Your task to perform on an android device: show emergency info Image 0: 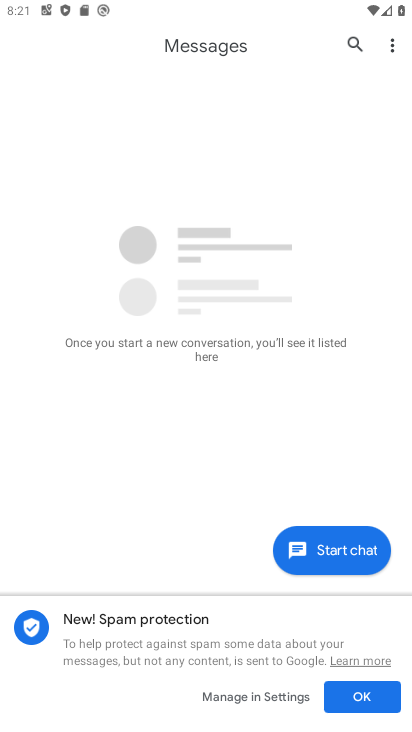
Step 0: press home button
Your task to perform on an android device: show emergency info Image 1: 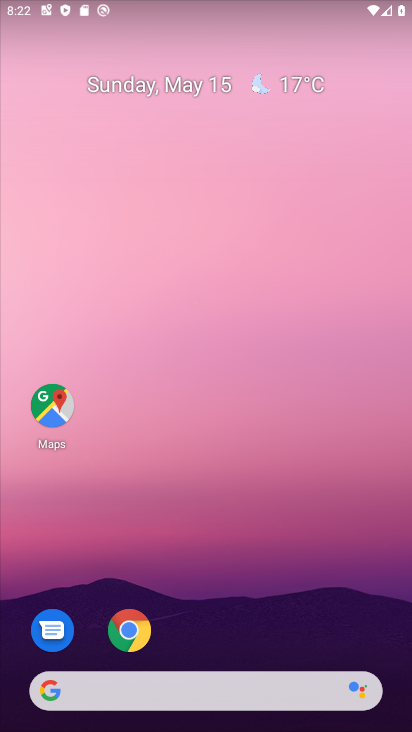
Step 1: drag from (283, 552) to (170, 137)
Your task to perform on an android device: show emergency info Image 2: 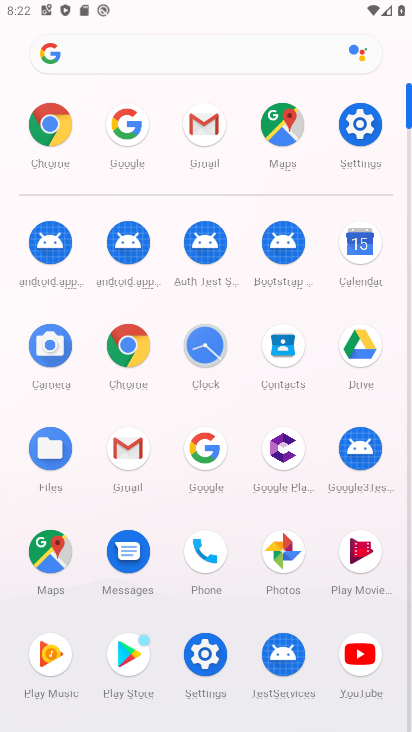
Step 2: click (367, 123)
Your task to perform on an android device: show emergency info Image 3: 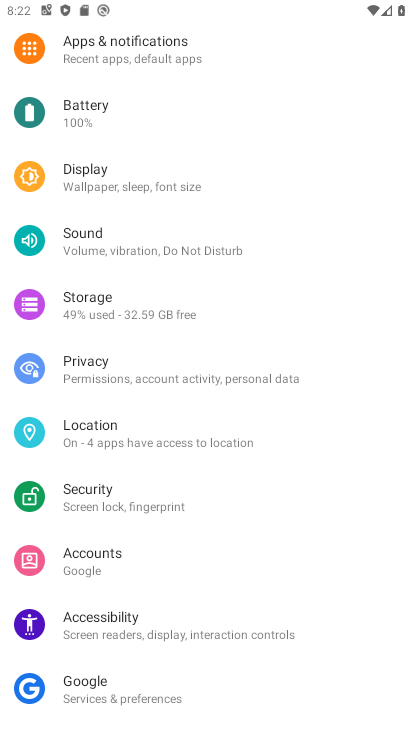
Step 3: drag from (180, 604) to (135, 194)
Your task to perform on an android device: show emergency info Image 4: 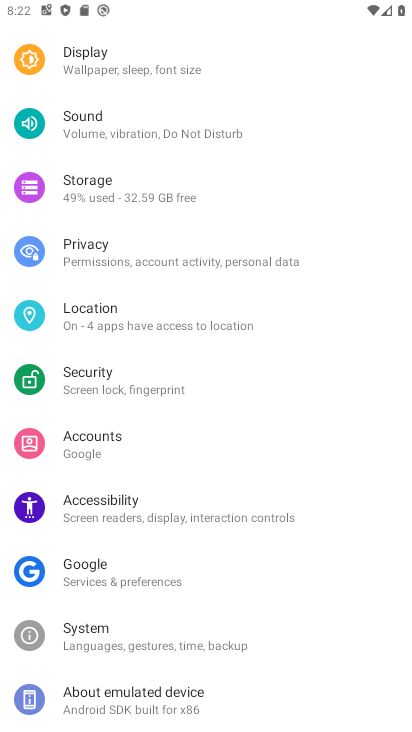
Step 4: drag from (138, 567) to (142, 100)
Your task to perform on an android device: show emergency info Image 5: 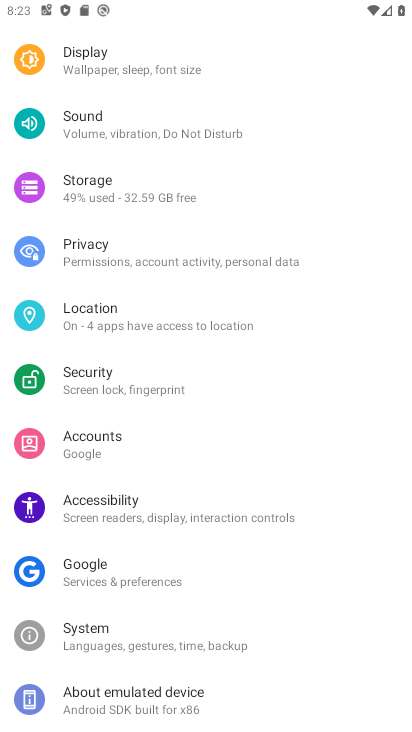
Step 5: click (67, 692)
Your task to perform on an android device: show emergency info Image 6: 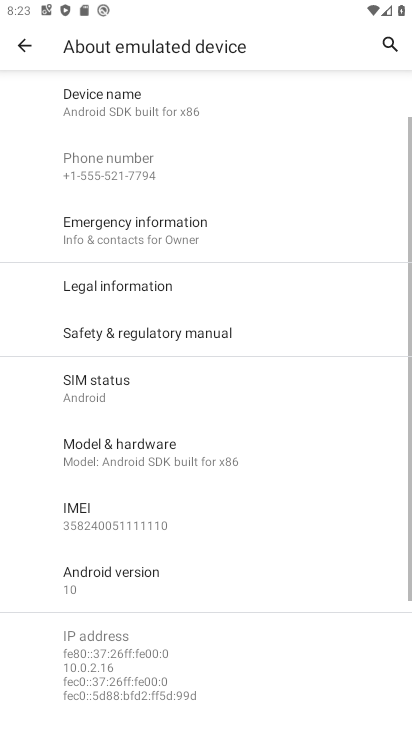
Step 6: drag from (185, 621) to (202, 399)
Your task to perform on an android device: show emergency info Image 7: 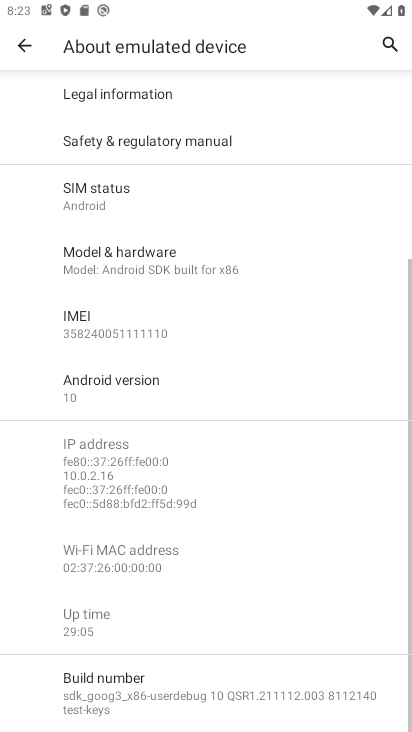
Step 7: drag from (206, 274) to (200, 615)
Your task to perform on an android device: show emergency info Image 8: 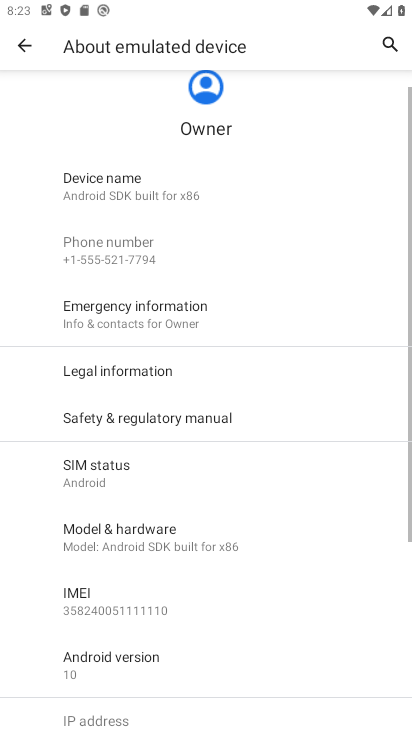
Step 8: drag from (188, 370) to (200, 559)
Your task to perform on an android device: show emergency info Image 9: 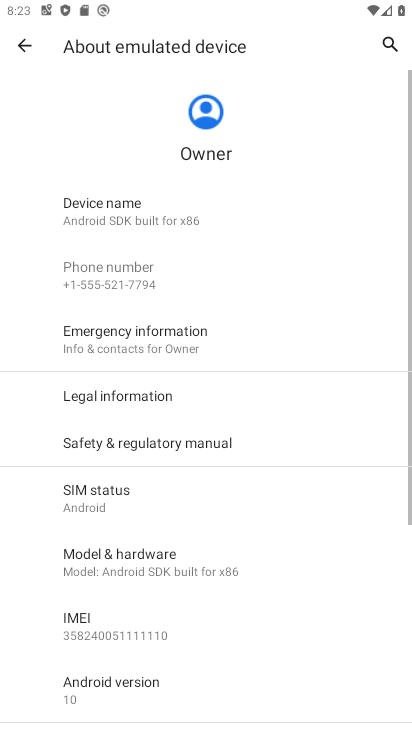
Step 9: click (121, 359)
Your task to perform on an android device: show emergency info Image 10: 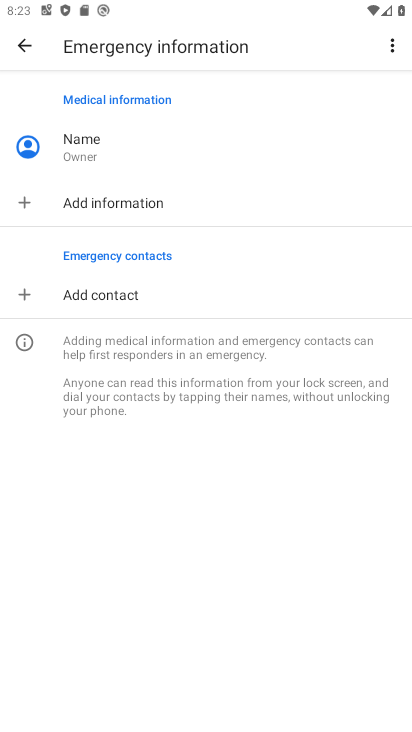
Step 10: task complete